Your task to perform on an android device: turn on location history Image 0: 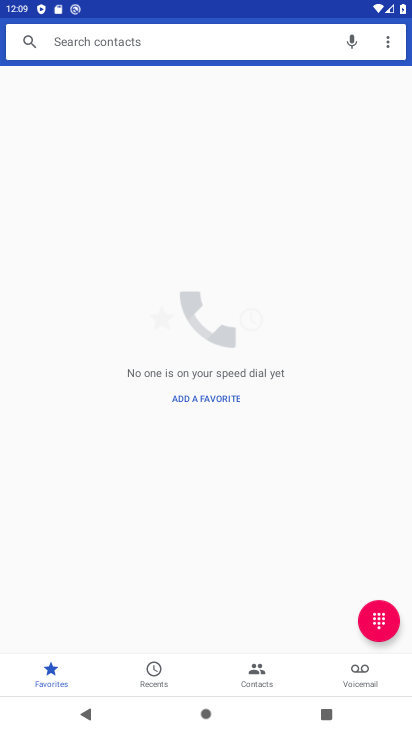
Step 0: press home button
Your task to perform on an android device: turn on location history Image 1: 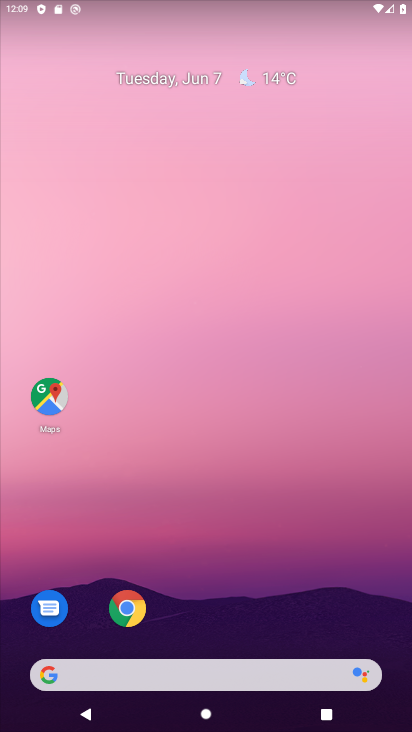
Step 1: drag from (196, 662) to (313, 32)
Your task to perform on an android device: turn on location history Image 2: 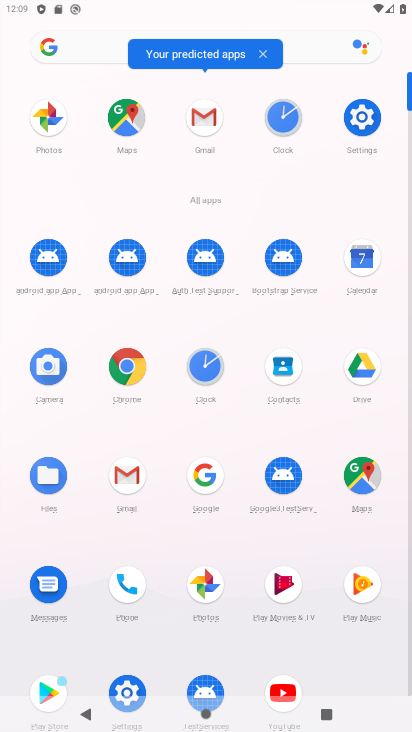
Step 2: click (123, 682)
Your task to perform on an android device: turn on location history Image 3: 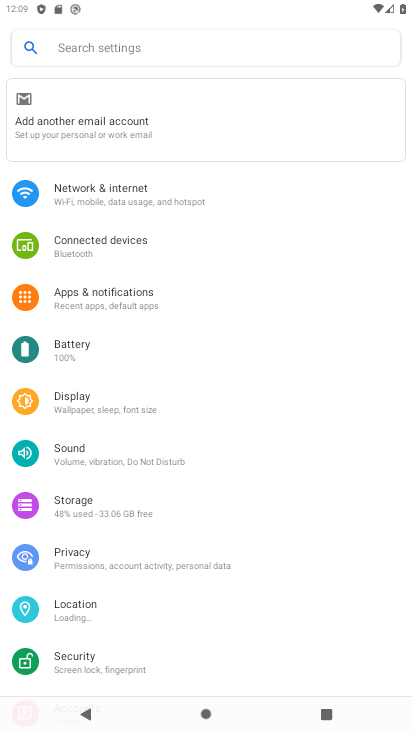
Step 3: drag from (154, 638) to (228, 427)
Your task to perform on an android device: turn on location history Image 4: 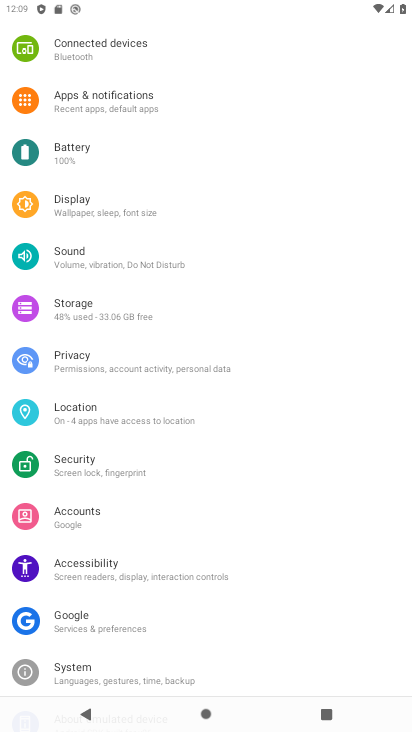
Step 4: click (181, 423)
Your task to perform on an android device: turn on location history Image 5: 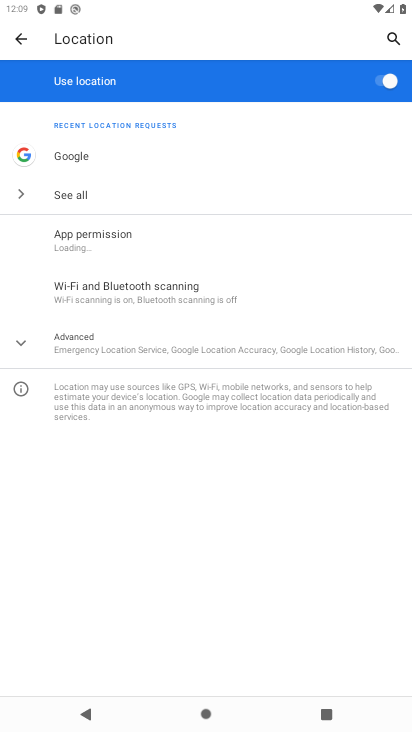
Step 5: click (72, 341)
Your task to perform on an android device: turn on location history Image 6: 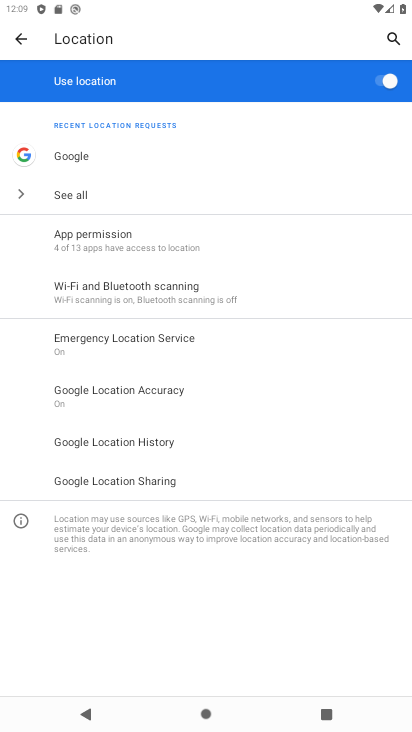
Step 6: click (201, 440)
Your task to perform on an android device: turn on location history Image 7: 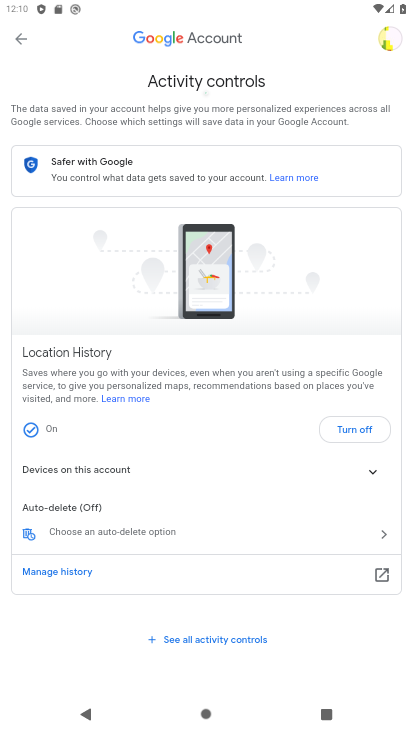
Step 7: task complete